Your task to perform on an android device: Open accessibility settings Image 0: 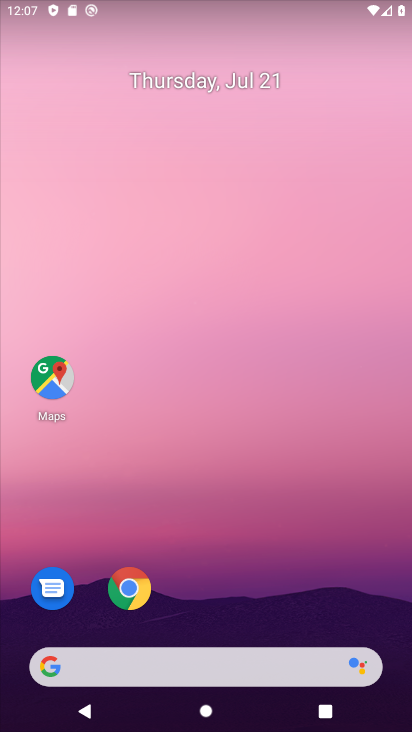
Step 0: drag from (210, 601) to (219, 104)
Your task to perform on an android device: Open accessibility settings Image 1: 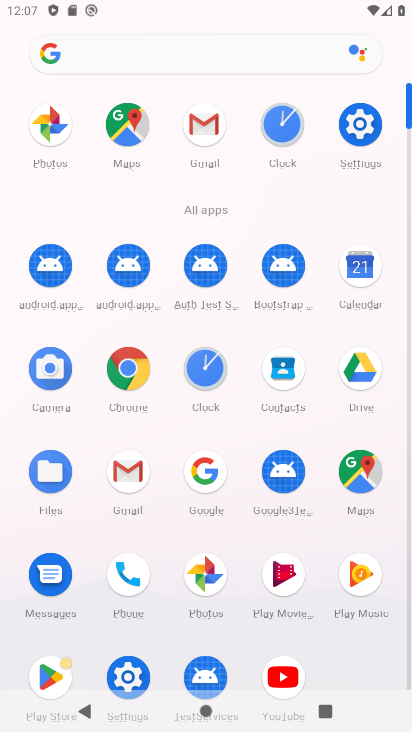
Step 1: click (121, 661)
Your task to perform on an android device: Open accessibility settings Image 2: 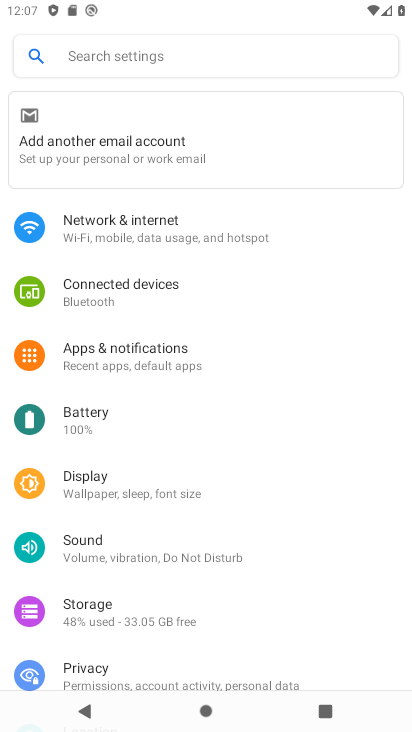
Step 2: drag from (132, 593) to (145, 433)
Your task to perform on an android device: Open accessibility settings Image 3: 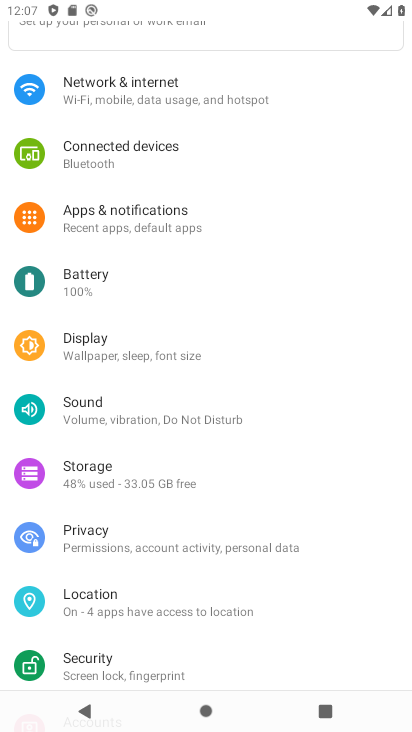
Step 3: drag from (134, 619) to (149, 377)
Your task to perform on an android device: Open accessibility settings Image 4: 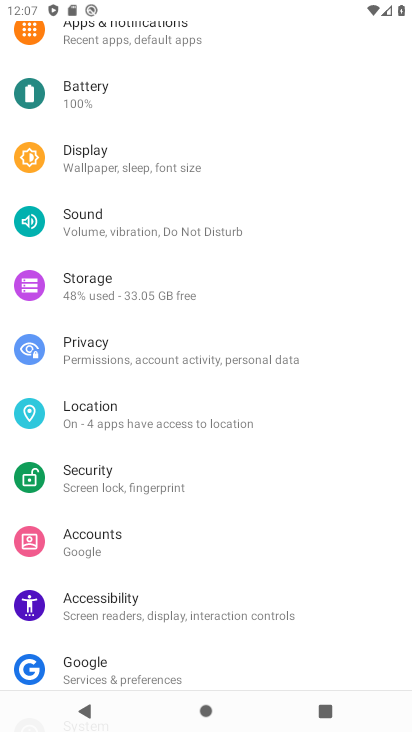
Step 4: click (118, 614)
Your task to perform on an android device: Open accessibility settings Image 5: 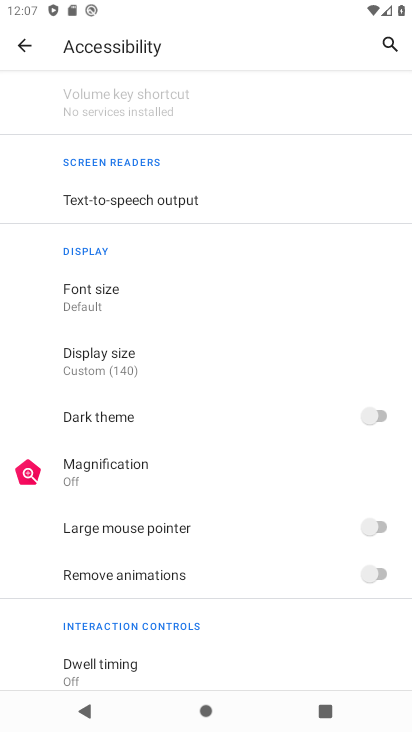
Step 5: task complete